Your task to perform on an android device: turn off picture-in-picture Image 0: 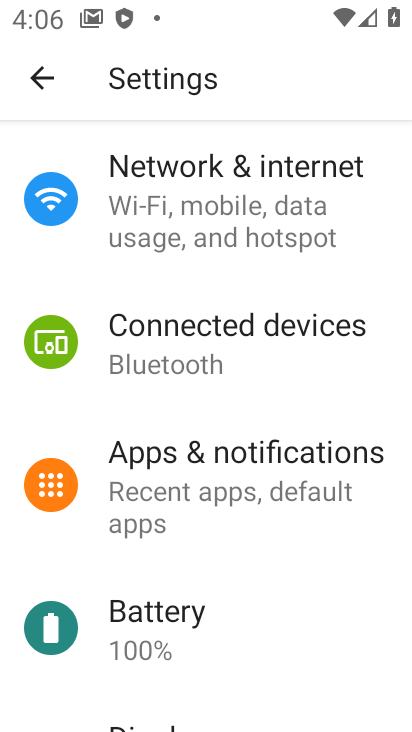
Step 0: click (226, 474)
Your task to perform on an android device: turn off picture-in-picture Image 1: 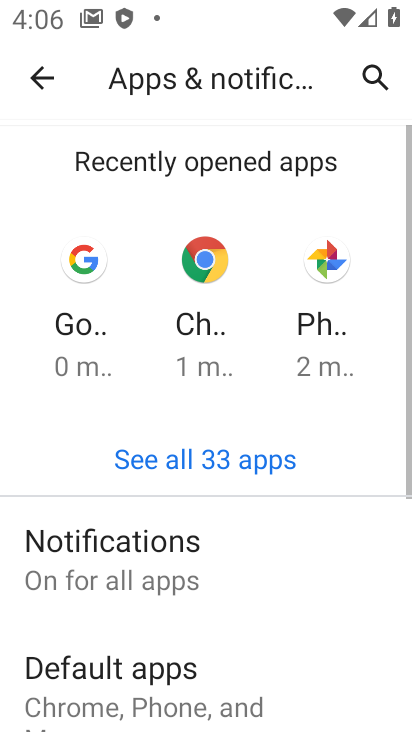
Step 1: drag from (167, 663) to (265, 160)
Your task to perform on an android device: turn off picture-in-picture Image 2: 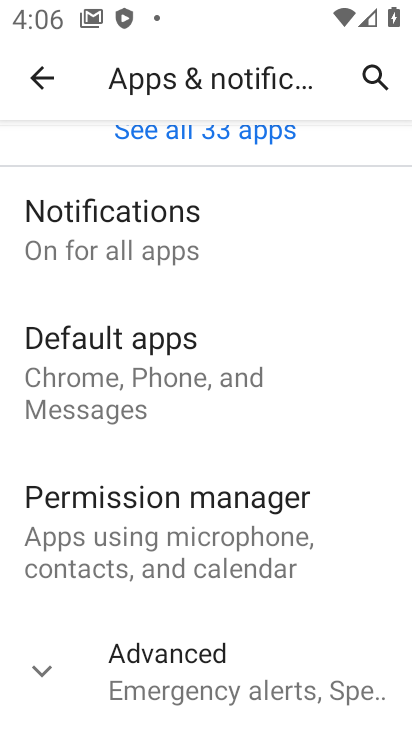
Step 2: click (186, 679)
Your task to perform on an android device: turn off picture-in-picture Image 3: 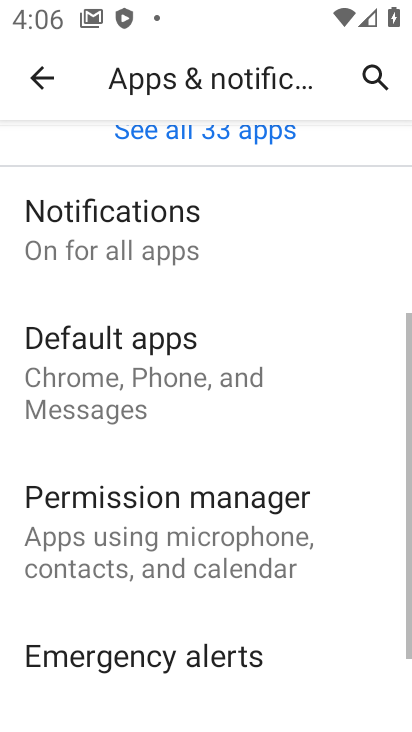
Step 3: drag from (186, 679) to (227, 66)
Your task to perform on an android device: turn off picture-in-picture Image 4: 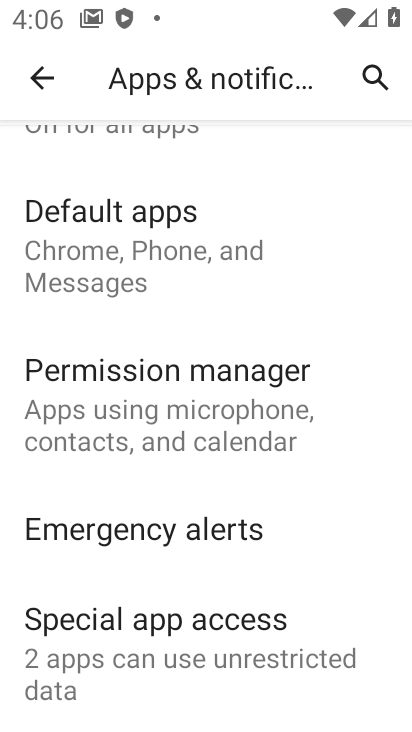
Step 4: click (131, 634)
Your task to perform on an android device: turn off picture-in-picture Image 5: 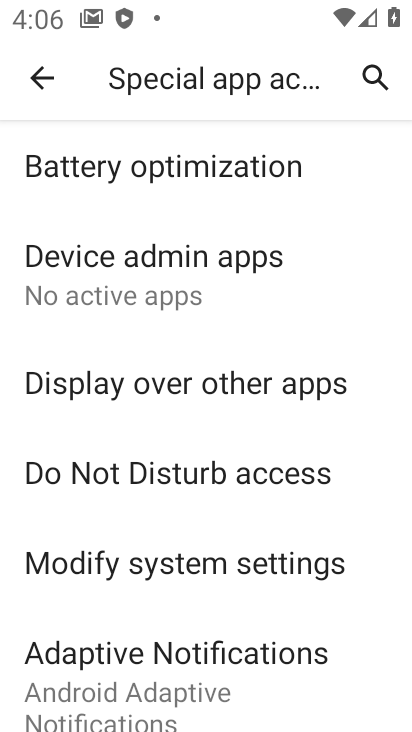
Step 5: drag from (141, 672) to (244, 66)
Your task to perform on an android device: turn off picture-in-picture Image 6: 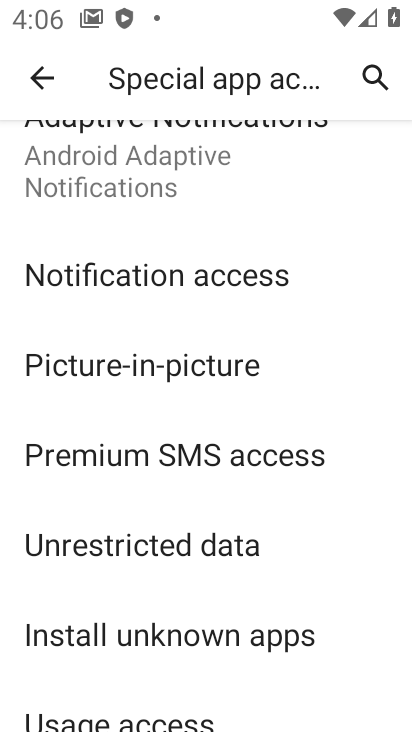
Step 6: click (97, 357)
Your task to perform on an android device: turn off picture-in-picture Image 7: 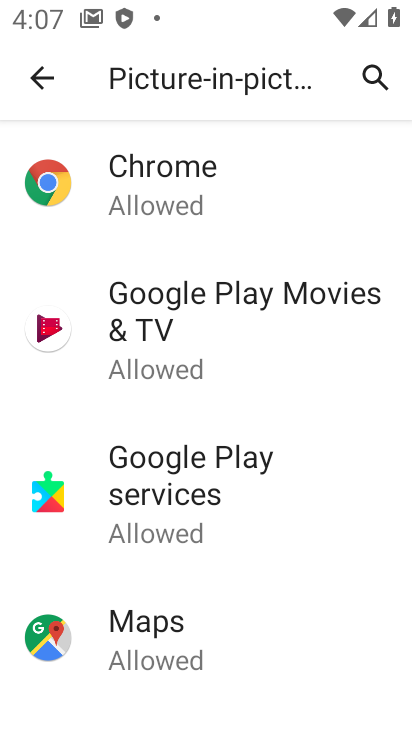
Step 7: click (149, 185)
Your task to perform on an android device: turn off picture-in-picture Image 8: 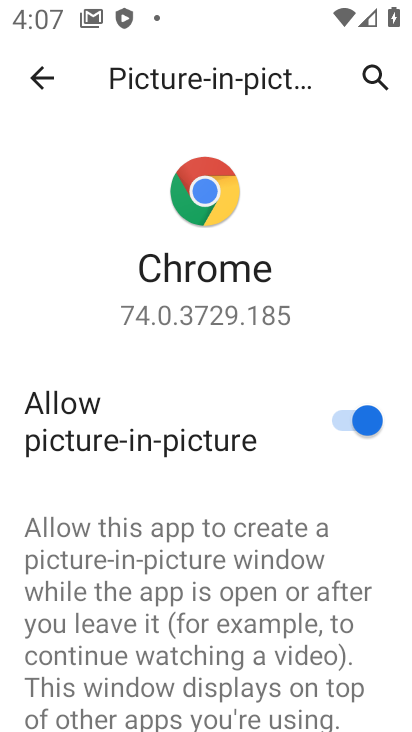
Step 8: click (330, 399)
Your task to perform on an android device: turn off picture-in-picture Image 9: 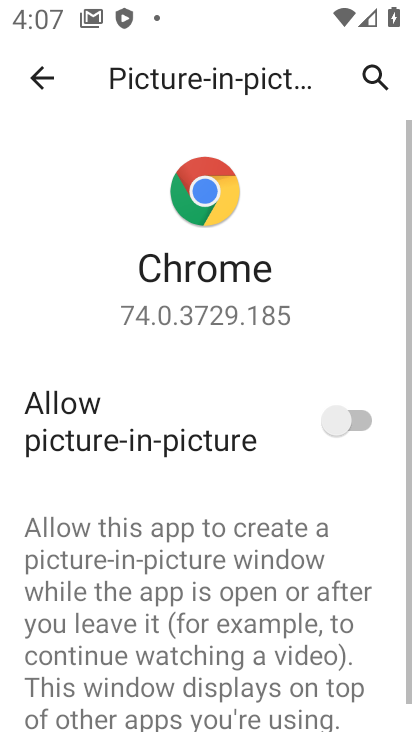
Step 9: task complete